Your task to perform on an android device: turn on the 12-hour format for clock Image 0: 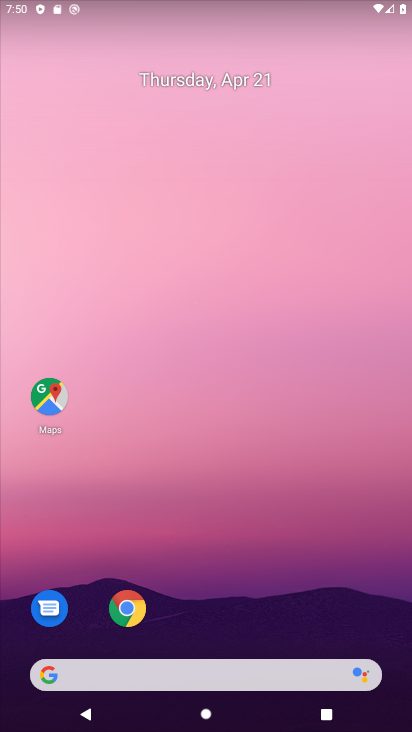
Step 0: drag from (252, 626) to (218, 117)
Your task to perform on an android device: turn on the 12-hour format for clock Image 1: 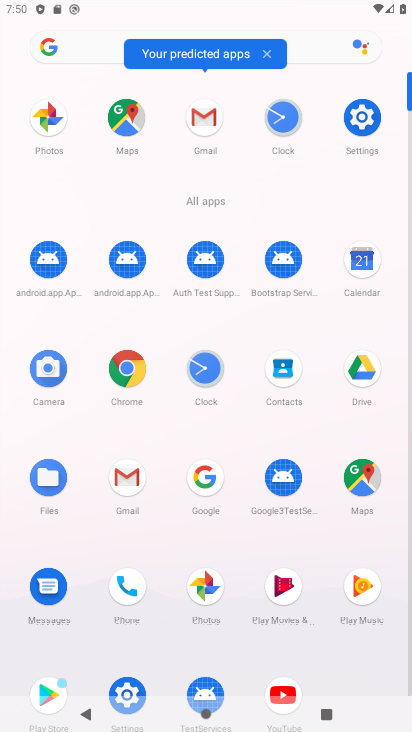
Step 1: click (257, 115)
Your task to perform on an android device: turn on the 12-hour format for clock Image 2: 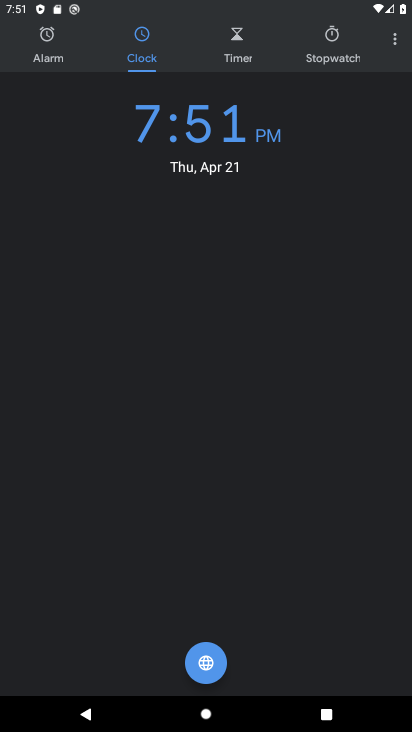
Step 2: click (397, 50)
Your task to perform on an android device: turn on the 12-hour format for clock Image 3: 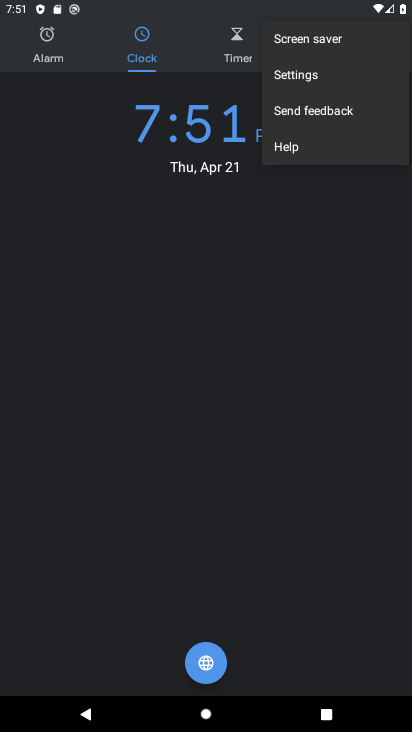
Step 3: click (340, 78)
Your task to perform on an android device: turn on the 12-hour format for clock Image 4: 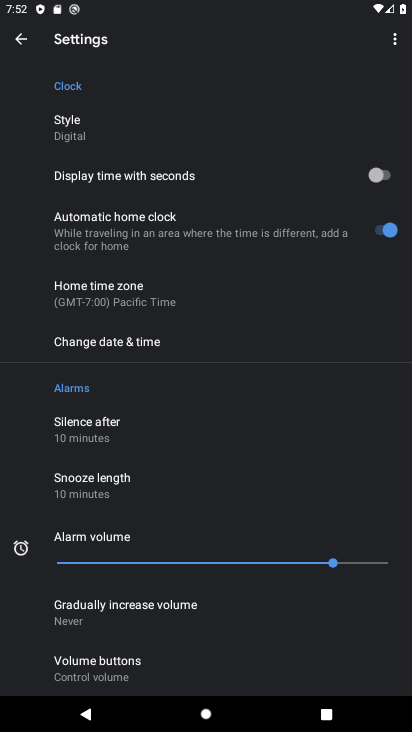
Step 4: task complete